Your task to perform on an android device: toggle notification dots Image 0: 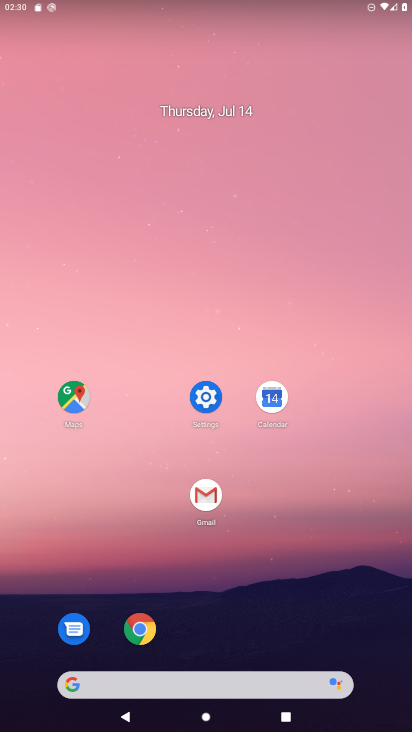
Step 0: drag from (388, 677) to (387, 223)
Your task to perform on an android device: toggle notification dots Image 1: 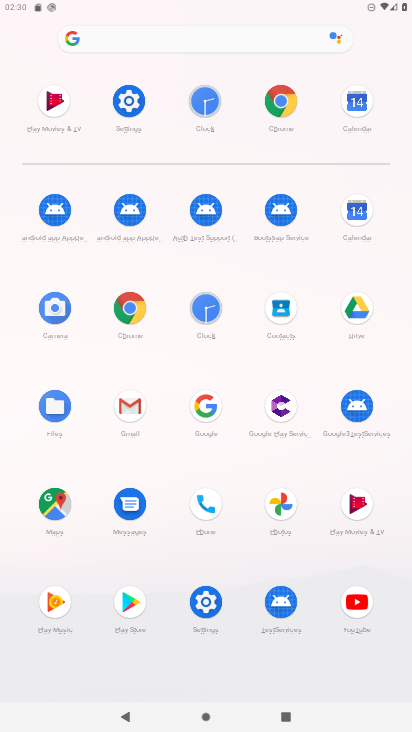
Step 1: click (136, 111)
Your task to perform on an android device: toggle notification dots Image 2: 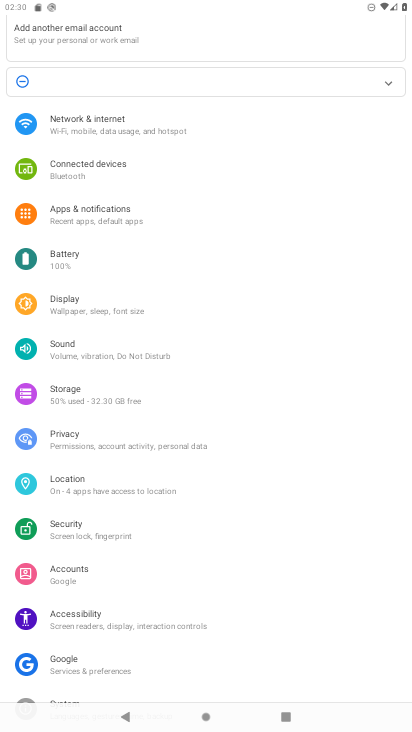
Step 2: click (91, 211)
Your task to perform on an android device: toggle notification dots Image 3: 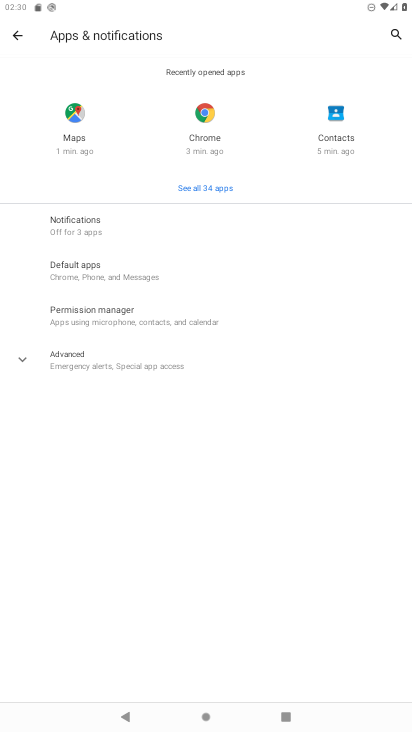
Step 3: click (91, 219)
Your task to perform on an android device: toggle notification dots Image 4: 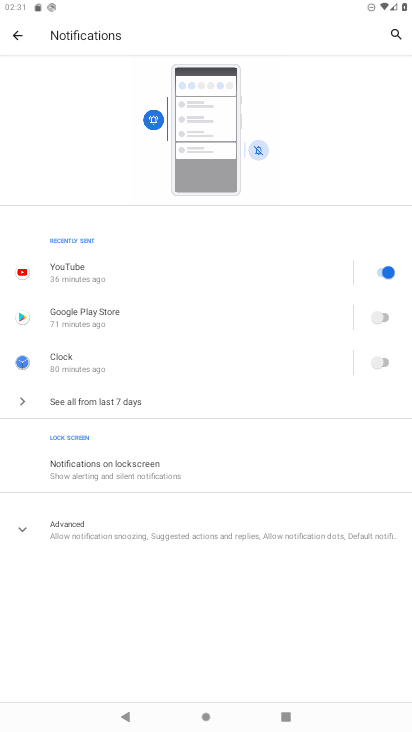
Step 4: click (29, 536)
Your task to perform on an android device: toggle notification dots Image 5: 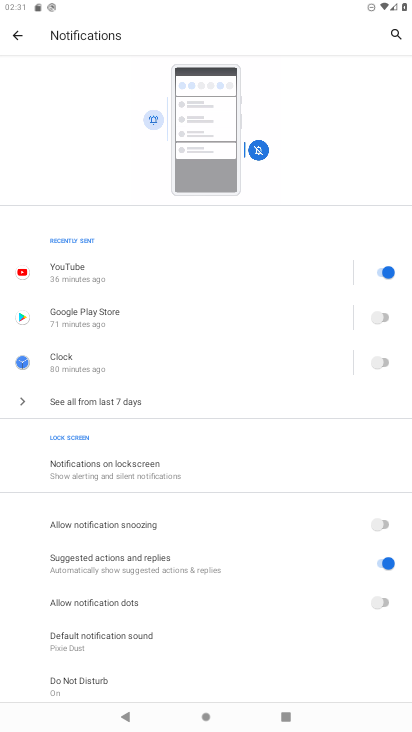
Step 5: click (381, 603)
Your task to perform on an android device: toggle notification dots Image 6: 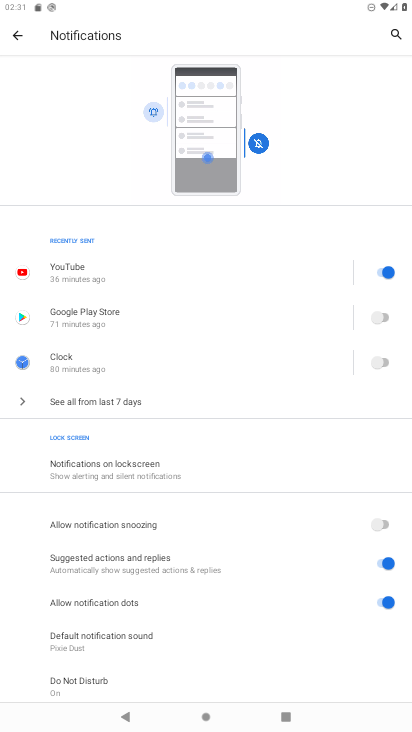
Step 6: task complete